Your task to perform on an android device: empty trash in the gmail app Image 0: 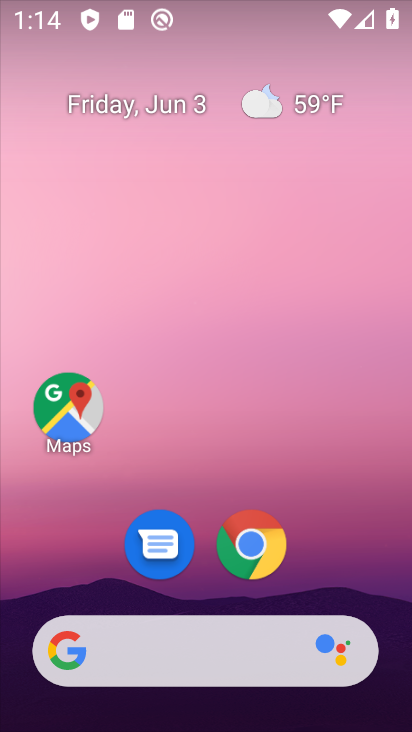
Step 0: drag from (269, 618) to (78, 1)
Your task to perform on an android device: empty trash in the gmail app Image 1: 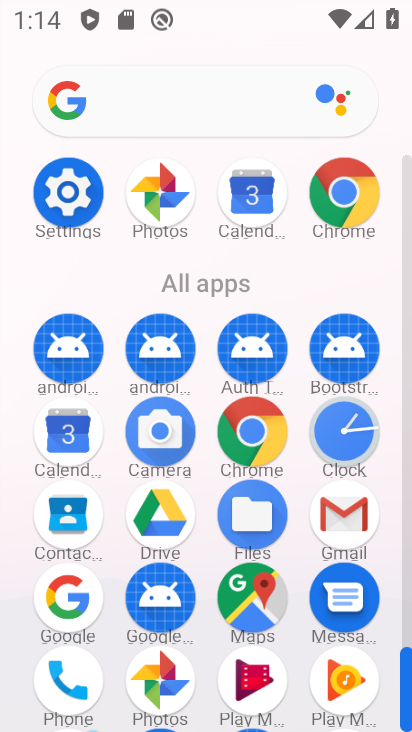
Step 1: click (359, 509)
Your task to perform on an android device: empty trash in the gmail app Image 2: 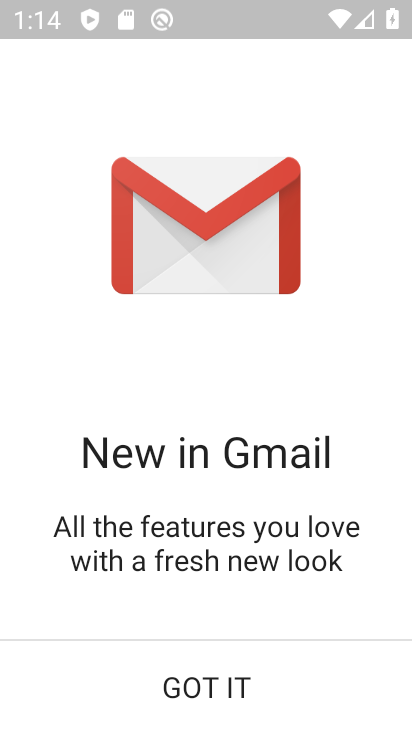
Step 2: click (203, 690)
Your task to perform on an android device: empty trash in the gmail app Image 3: 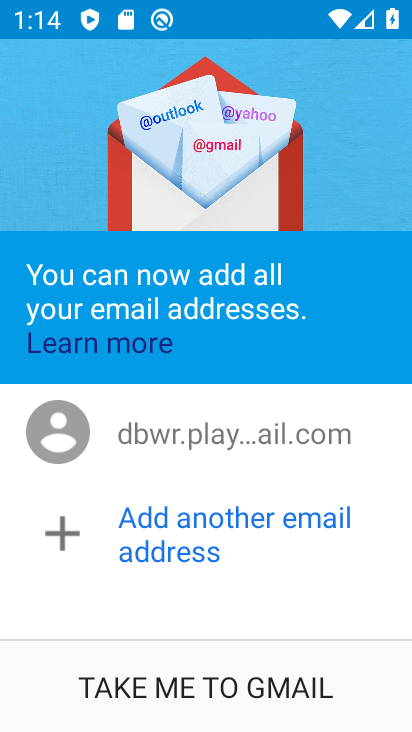
Step 3: click (151, 708)
Your task to perform on an android device: empty trash in the gmail app Image 4: 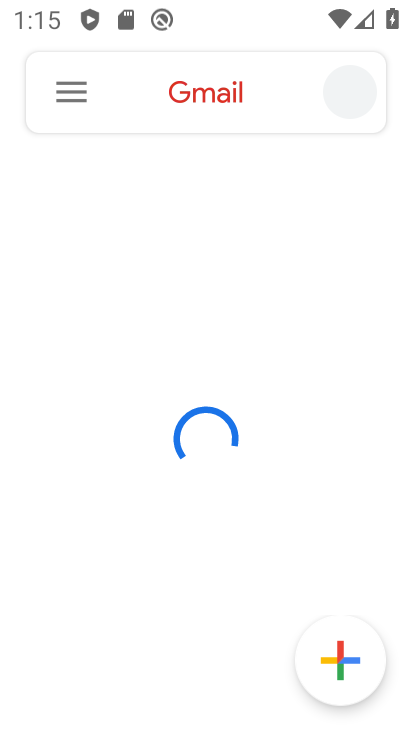
Step 4: click (43, 92)
Your task to perform on an android device: empty trash in the gmail app Image 5: 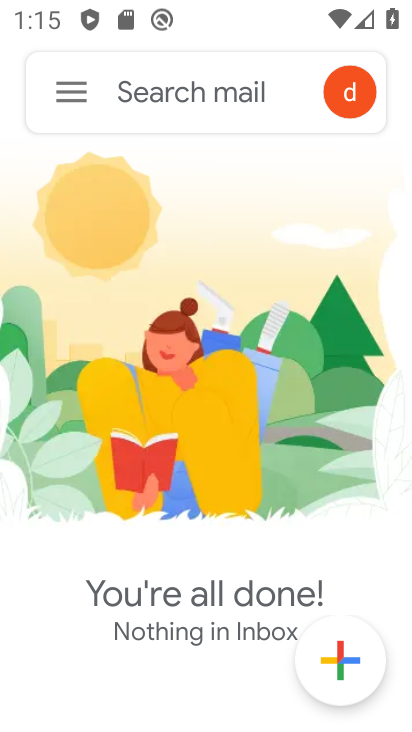
Step 5: click (59, 86)
Your task to perform on an android device: empty trash in the gmail app Image 6: 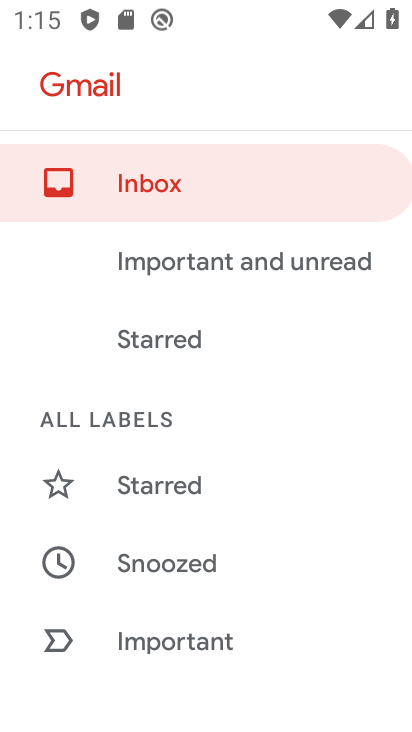
Step 6: drag from (176, 529) to (193, 29)
Your task to perform on an android device: empty trash in the gmail app Image 7: 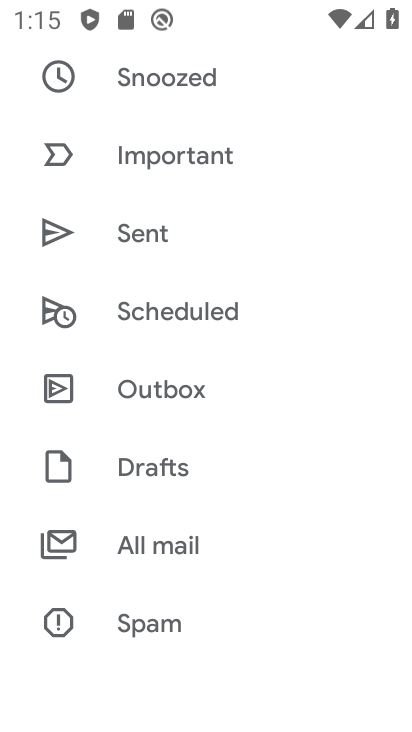
Step 7: drag from (157, 567) to (113, 57)
Your task to perform on an android device: empty trash in the gmail app Image 8: 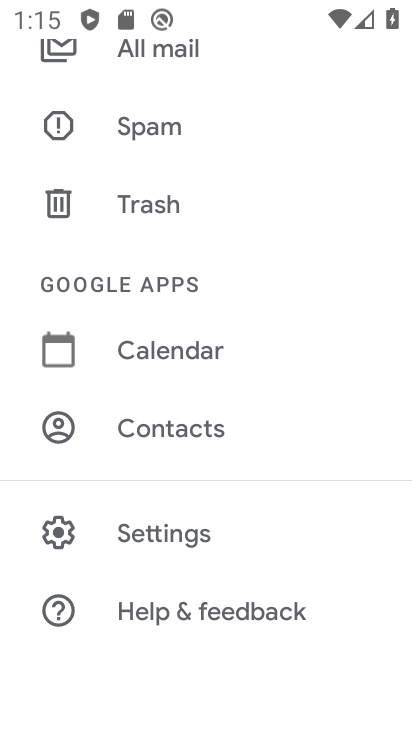
Step 8: click (115, 220)
Your task to perform on an android device: empty trash in the gmail app Image 9: 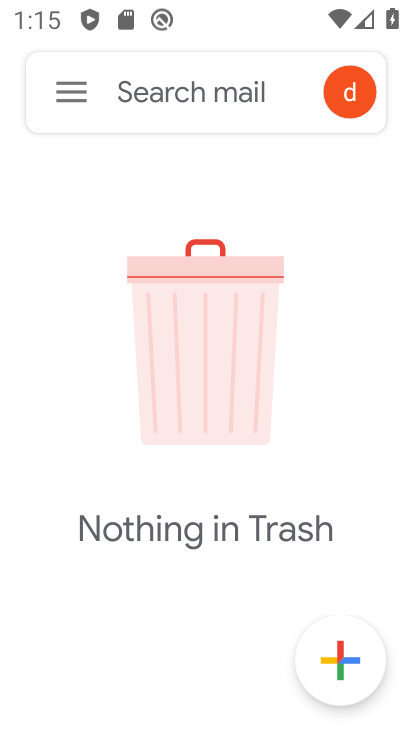
Step 9: task complete